Your task to perform on an android device: manage bookmarks in the chrome app Image 0: 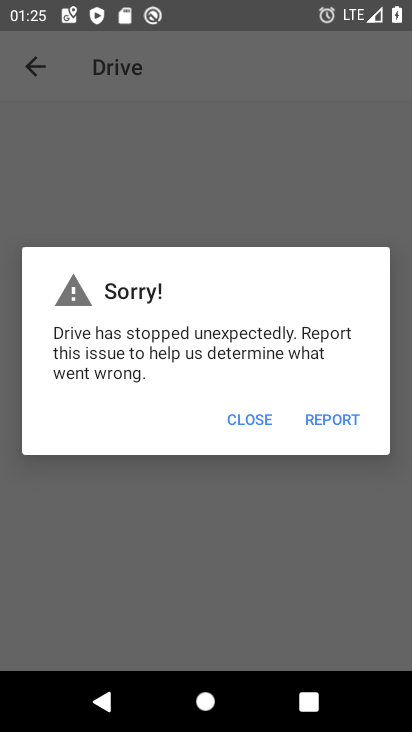
Step 0: press home button
Your task to perform on an android device: manage bookmarks in the chrome app Image 1: 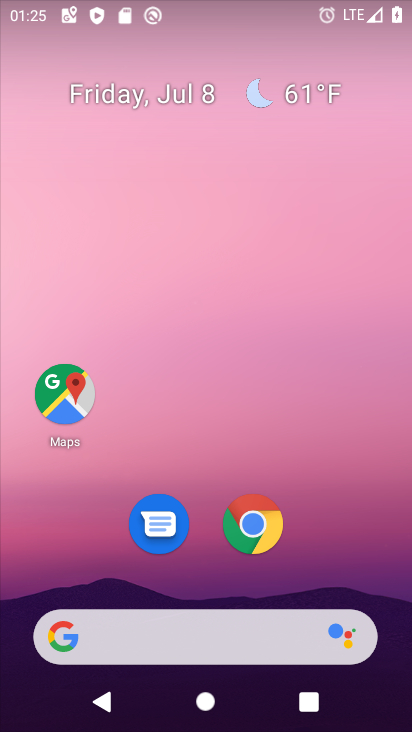
Step 1: click (254, 534)
Your task to perform on an android device: manage bookmarks in the chrome app Image 2: 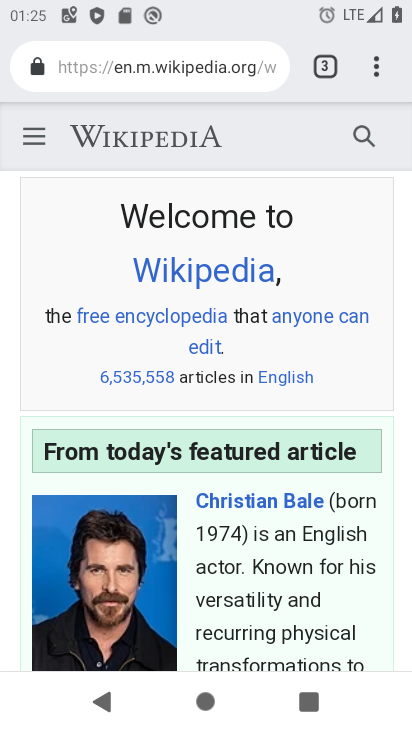
Step 2: click (373, 69)
Your task to perform on an android device: manage bookmarks in the chrome app Image 3: 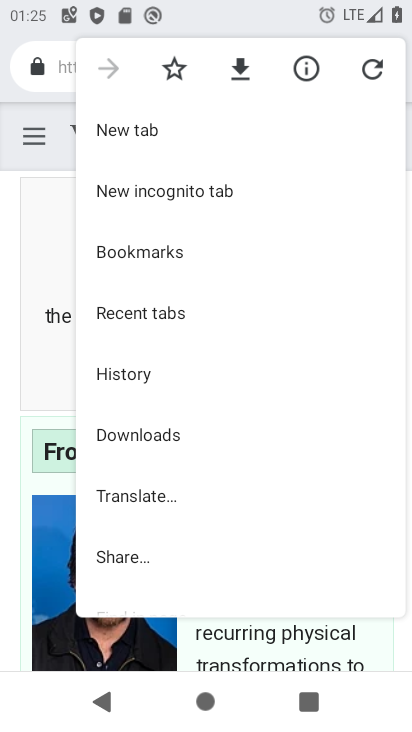
Step 3: click (182, 258)
Your task to perform on an android device: manage bookmarks in the chrome app Image 4: 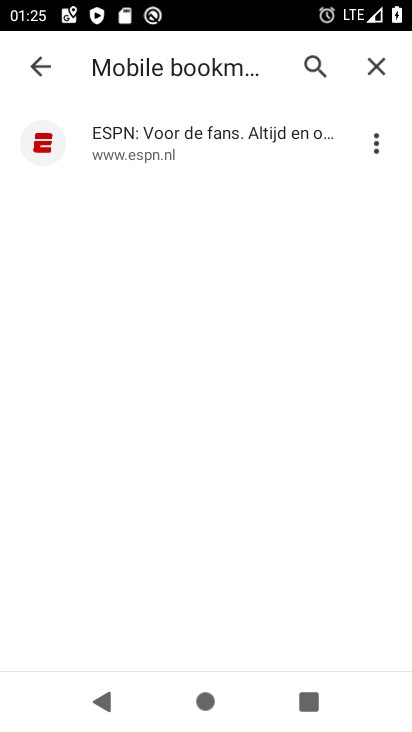
Step 4: click (380, 139)
Your task to perform on an android device: manage bookmarks in the chrome app Image 5: 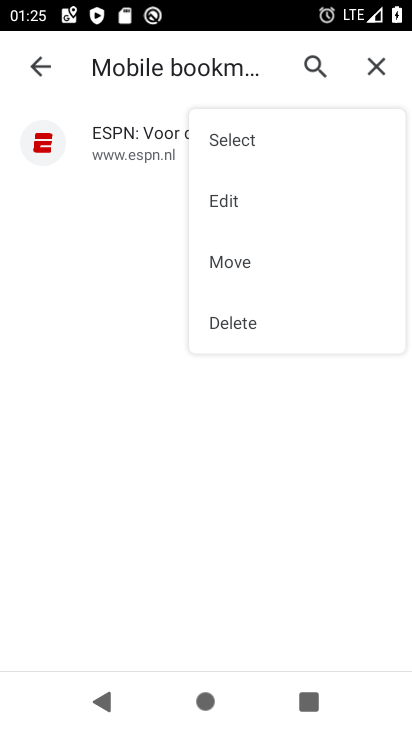
Step 5: click (276, 197)
Your task to perform on an android device: manage bookmarks in the chrome app Image 6: 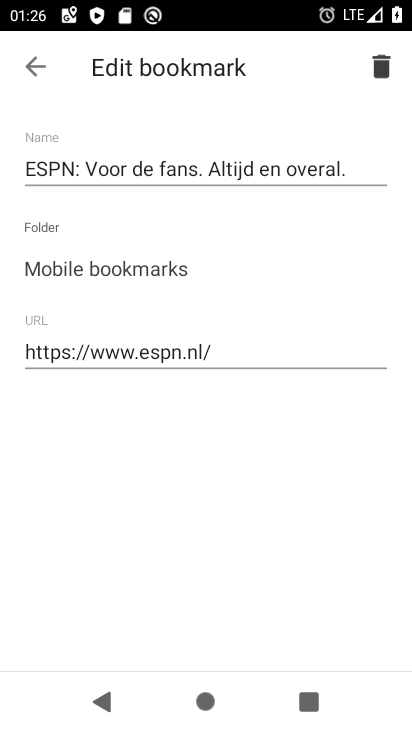
Step 6: click (34, 63)
Your task to perform on an android device: manage bookmarks in the chrome app Image 7: 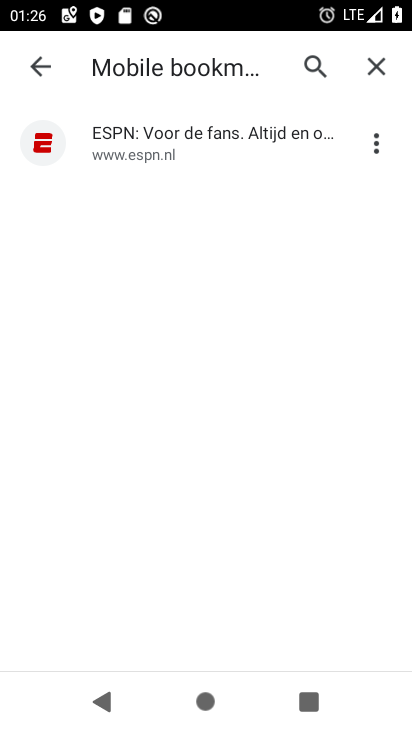
Step 7: task complete